Your task to perform on an android device: open the mobile data screen to see how much data has been used Image 0: 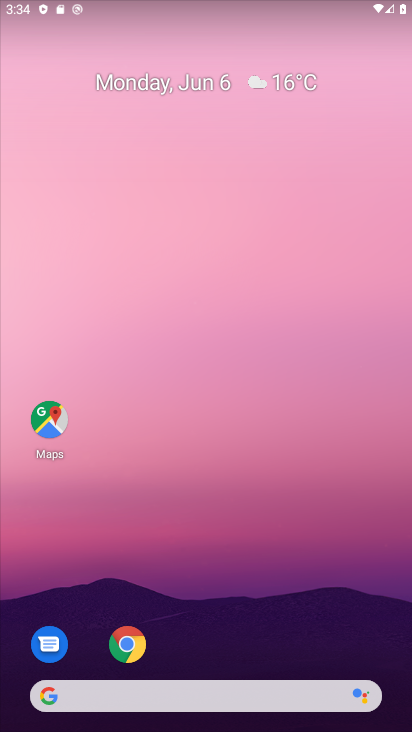
Step 0: drag from (159, 716) to (156, 0)
Your task to perform on an android device: open the mobile data screen to see how much data has been used Image 1: 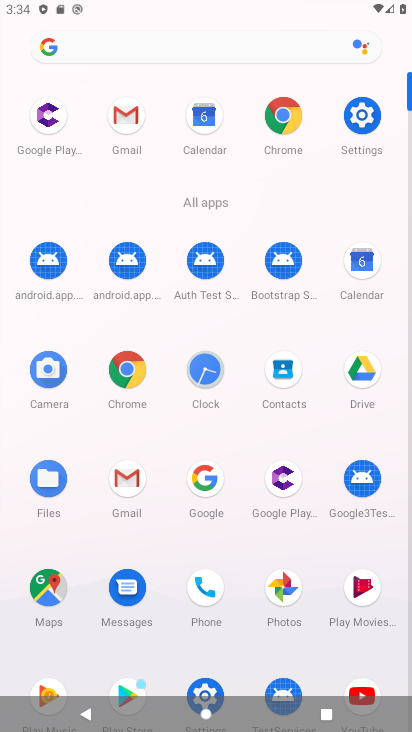
Step 1: click (355, 125)
Your task to perform on an android device: open the mobile data screen to see how much data has been used Image 2: 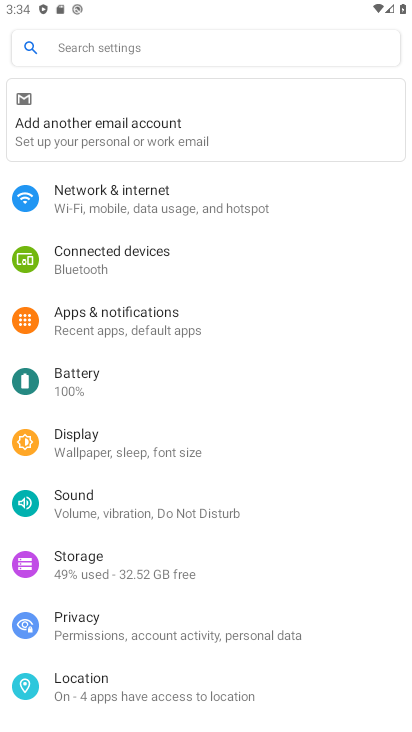
Step 2: click (249, 214)
Your task to perform on an android device: open the mobile data screen to see how much data has been used Image 3: 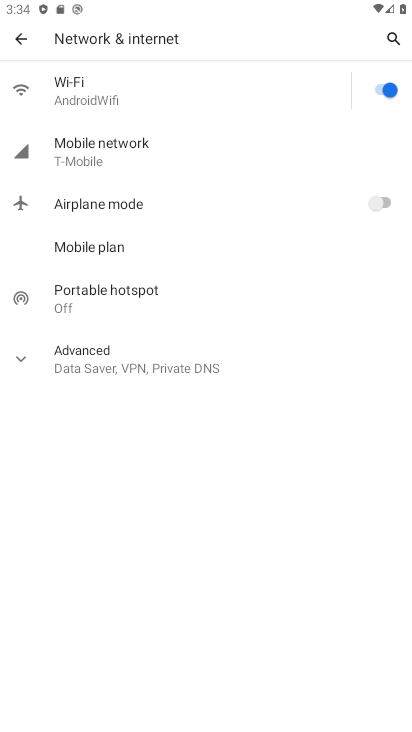
Step 3: click (122, 160)
Your task to perform on an android device: open the mobile data screen to see how much data has been used Image 4: 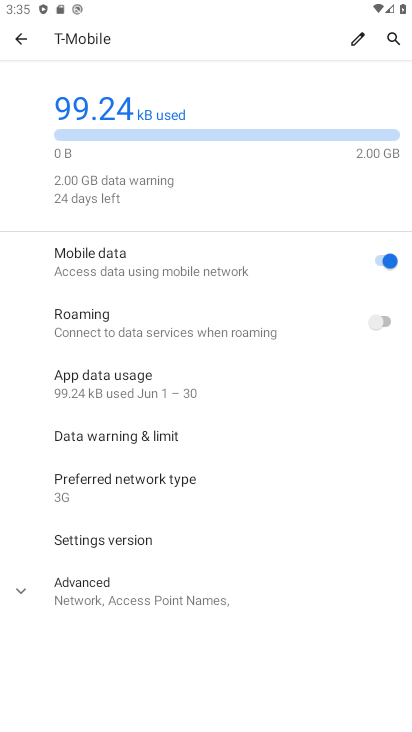
Step 4: task complete